Your task to perform on an android device: check out phone information Image 0: 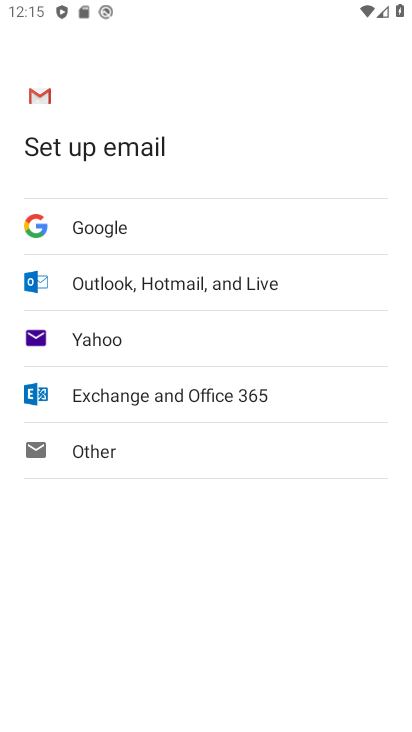
Step 0: press back button
Your task to perform on an android device: check out phone information Image 1: 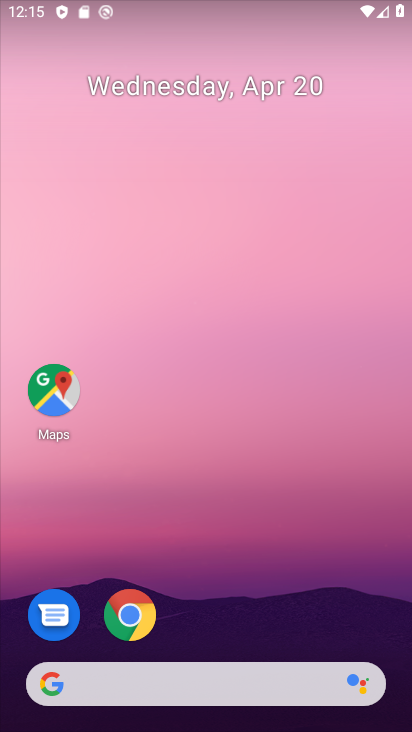
Step 1: drag from (215, 647) to (300, 168)
Your task to perform on an android device: check out phone information Image 2: 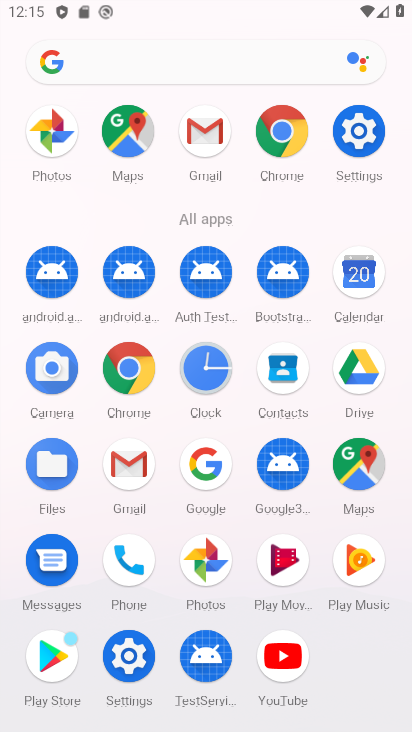
Step 2: click (353, 128)
Your task to perform on an android device: check out phone information Image 3: 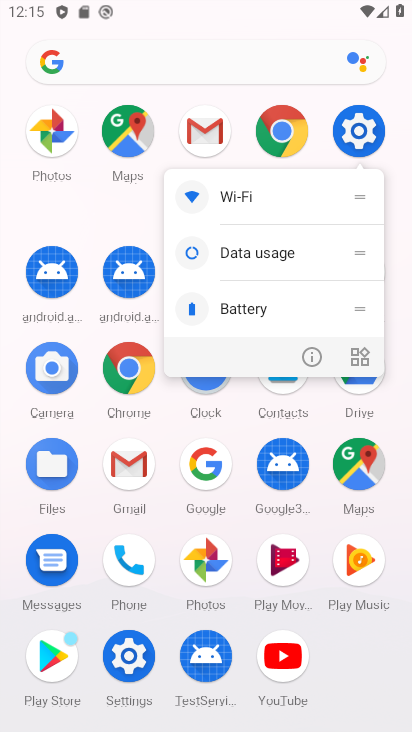
Step 3: click (361, 139)
Your task to perform on an android device: check out phone information Image 4: 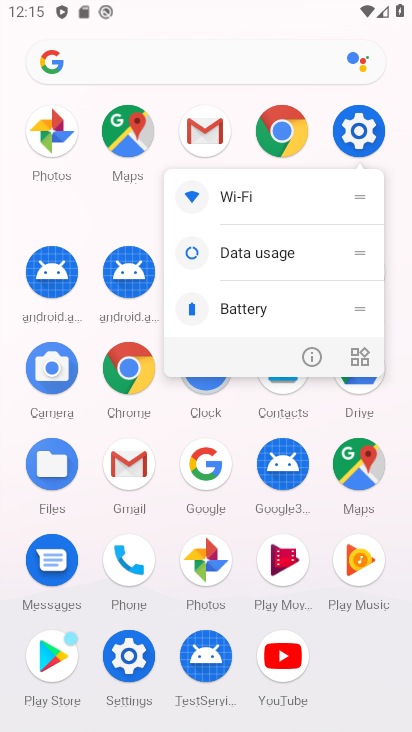
Step 4: click (376, 117)
Your task to perform on an android device: check out phone information Image 5: 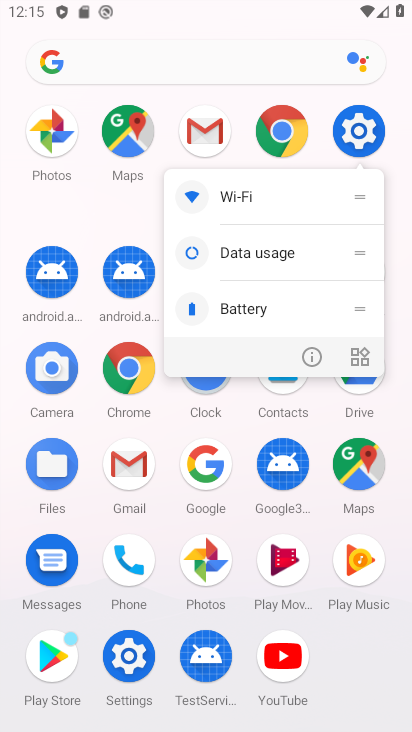
Step 5: click (360, 116)
Your task to perform on an android device: check out phone information Image 6: 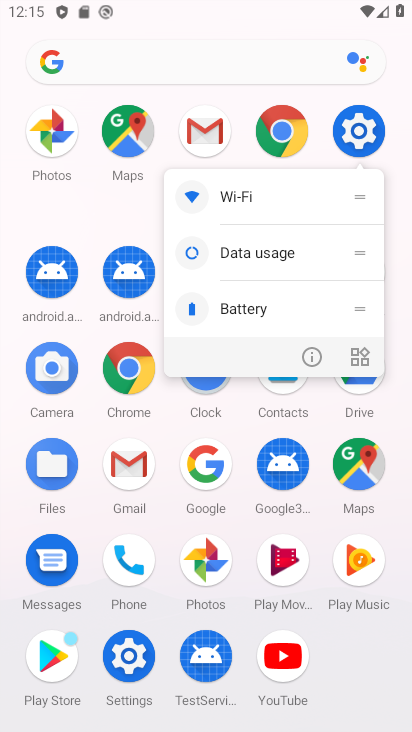
Step 6: click (359, 136)
Your task to perform on an android device: check out phone information Image 7: 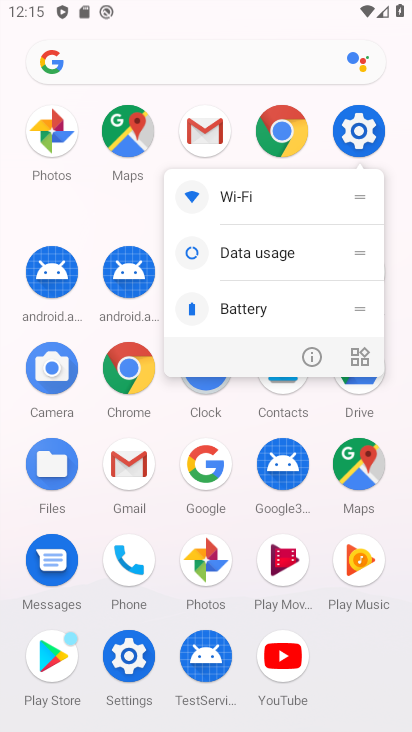
Step 7: click (338, 118)
Your task to perform on an android device: check out phone information Image 8: 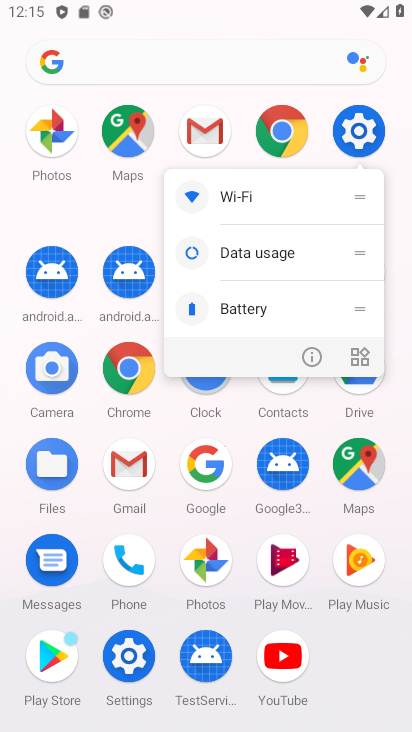
Step 8: click (370, 137)
Your task to perform on an android device: check out phone information Image 9: 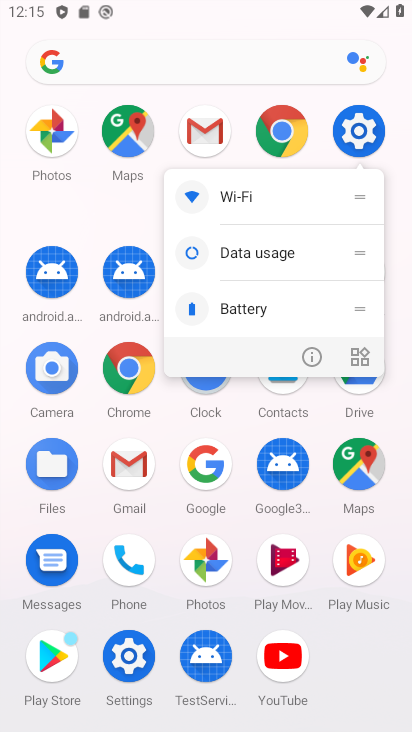
Step 9: click (353, 122)
Your task to perform on an android device: check out phone information Image 10: 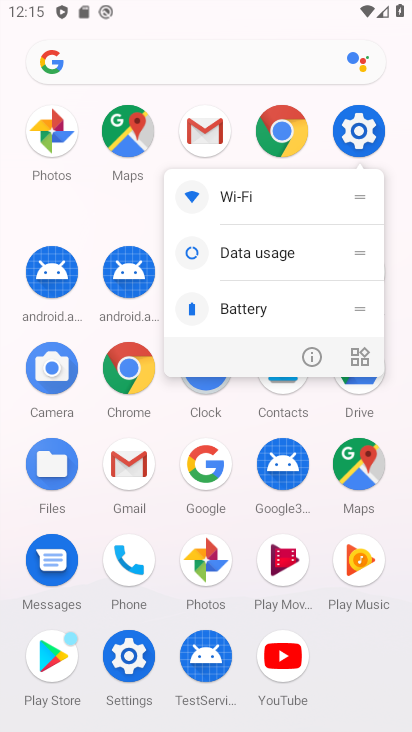
Step 10: click (358, 126)
Your task to perform on an android device: check out phone information Image 11: 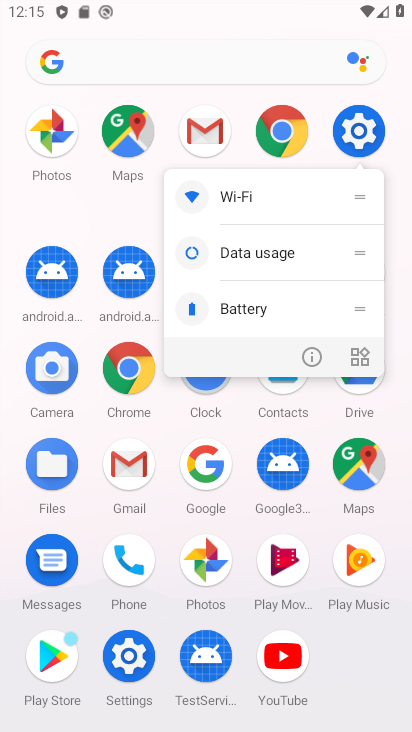
Step 11: click (362, 151)
Your task to perform on an android device: check out phone information Image 12: 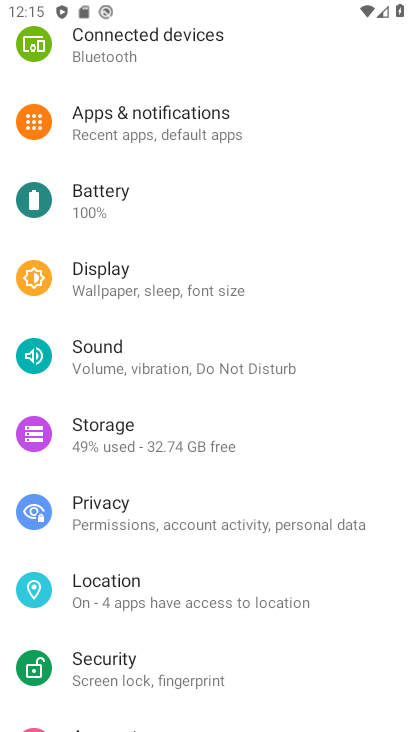
Step 12: drag from (146, 608) to (313, 54)
Your task to perform on an android device: check out phone information Image 13: 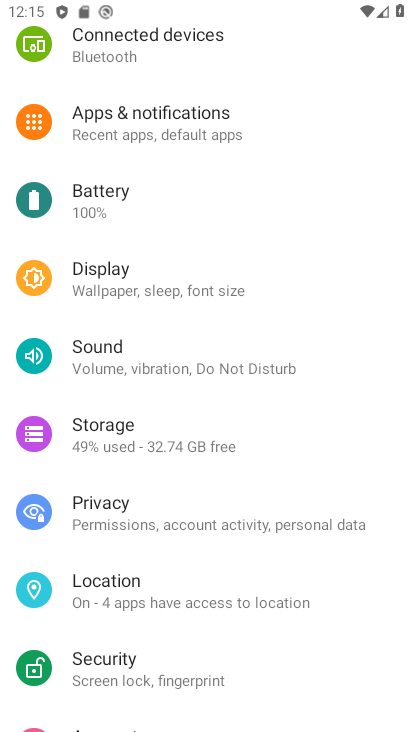
Step 13: drag from (163, 687) to (394, 166)
Your task to perform on an android device: check out phone information Image 14: 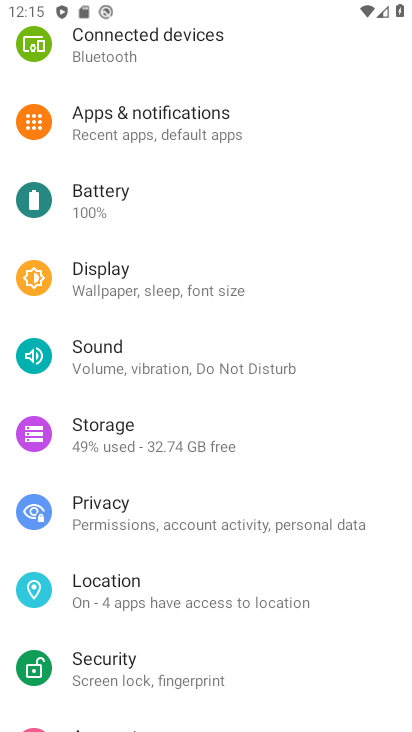
Step 14: drag from (207, 698) to (348, 64)
Your task to perform on an android device: check out phone information Image 15: 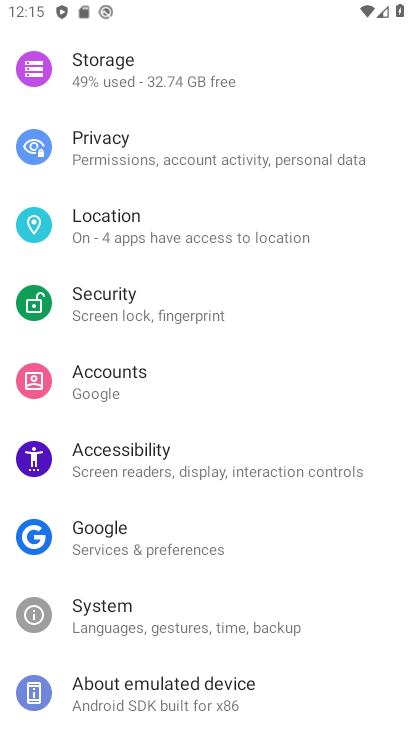
Step 15: click (217, 713)
Your task to perform on an android device: check out phone information Image 16: 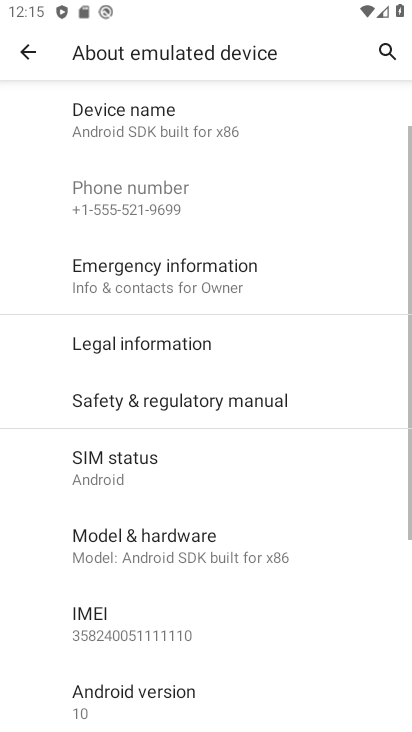
Step 16: task complete